Your task to perform on an android device: Search for sushi restaurants on Maps Image 0: 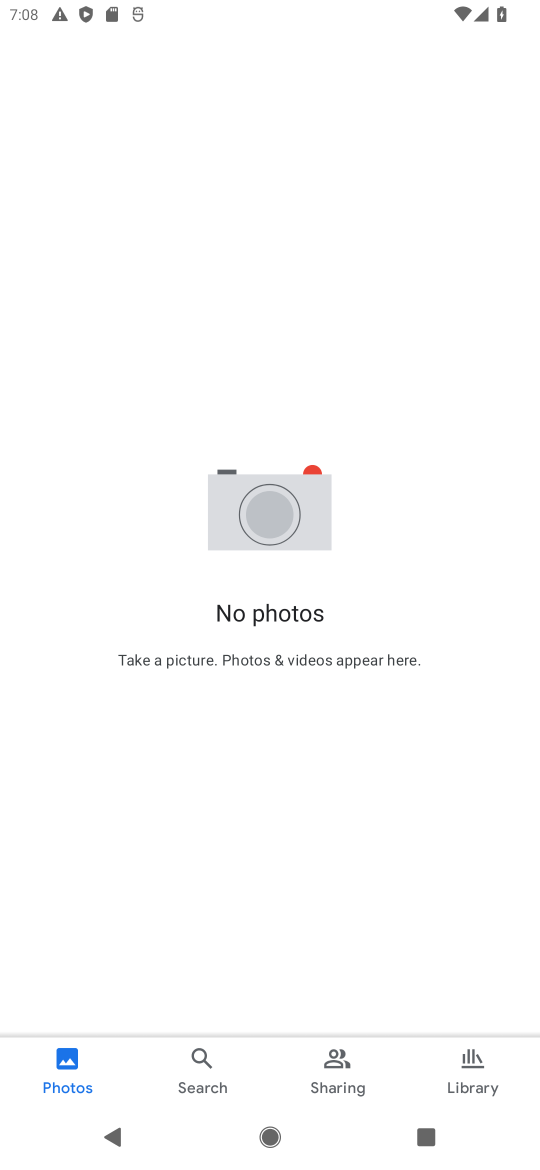
Step 0: press home button
Your task to perform on an android device: Search for sushi restaurants on Maps Image 1: 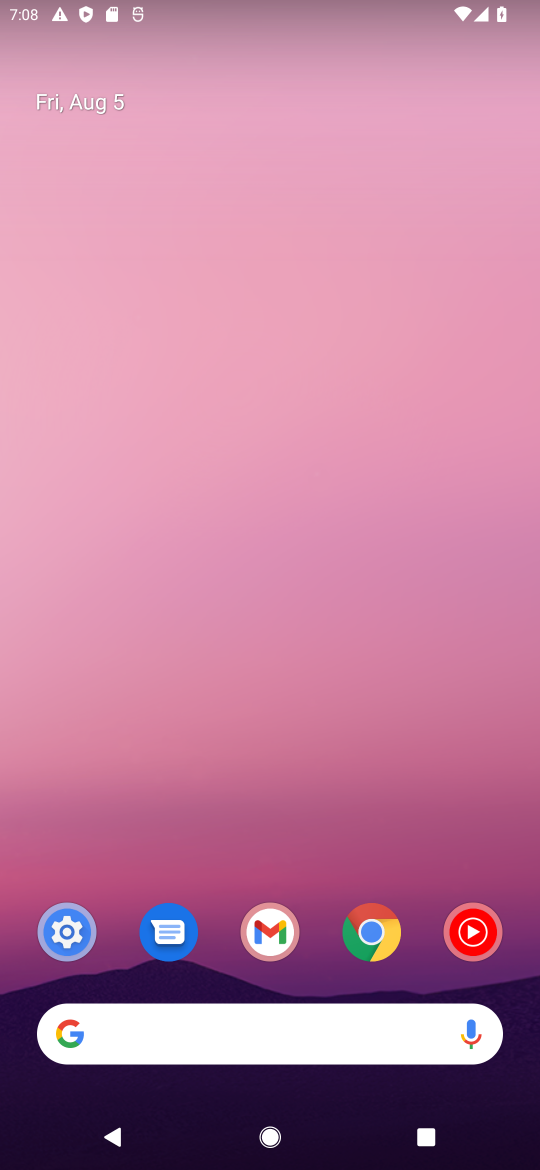
Step 1: drag from (210, 1043) to (297, 99)
Your task to perform on an android device: Search for sushi restaurants on Maps Image 2: 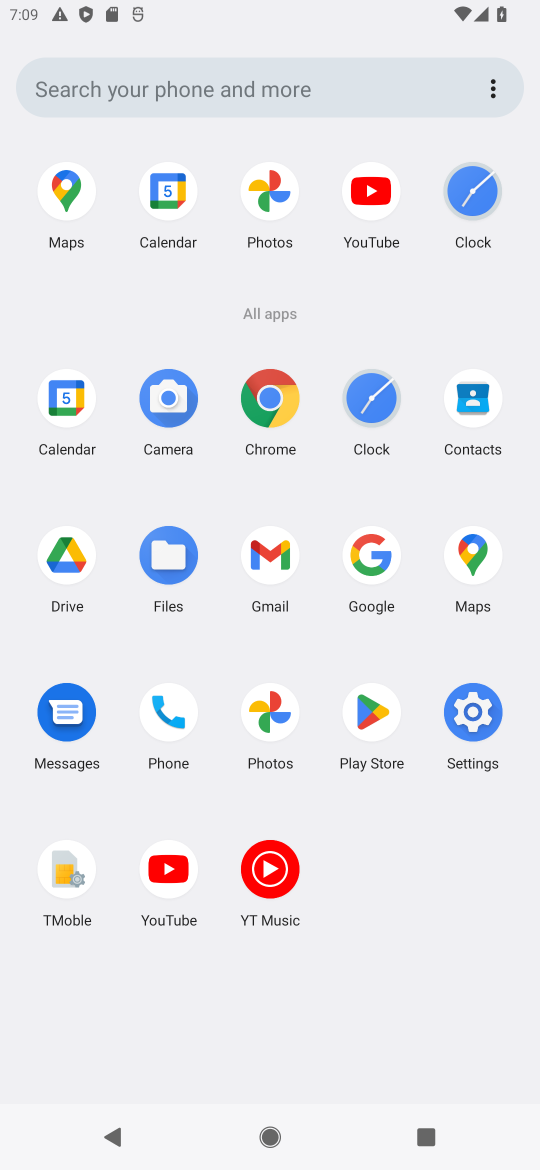
Step 2: click (67, 186)
Your task to perform on an android device: Search for sushi restaurants on Maps Image 3: 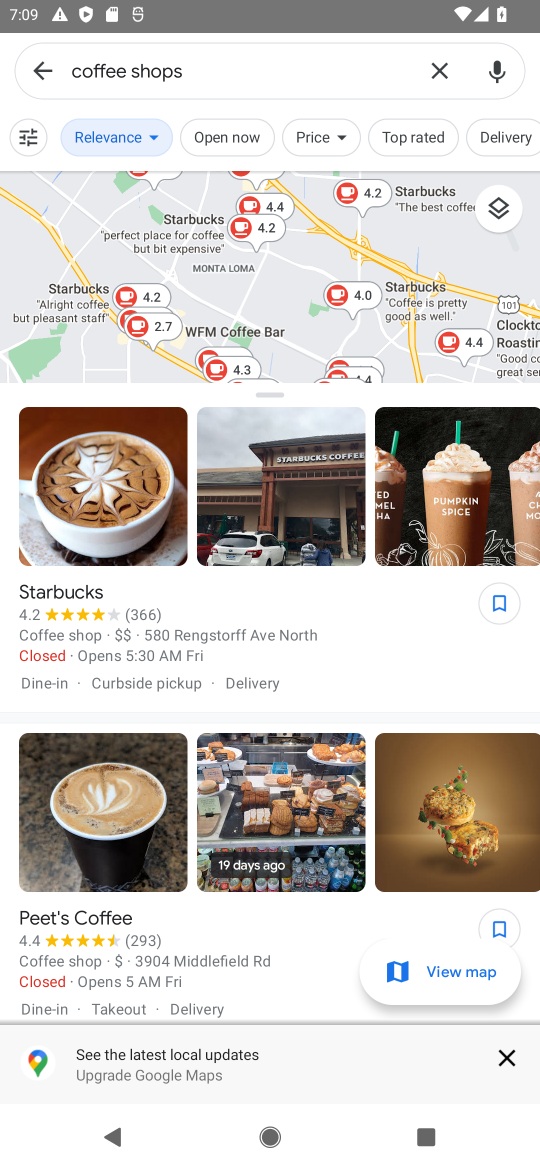
Step 3: click (438, 76)
Your task to perform on an android device: Search for sushi restaurants on Maps Image 4: 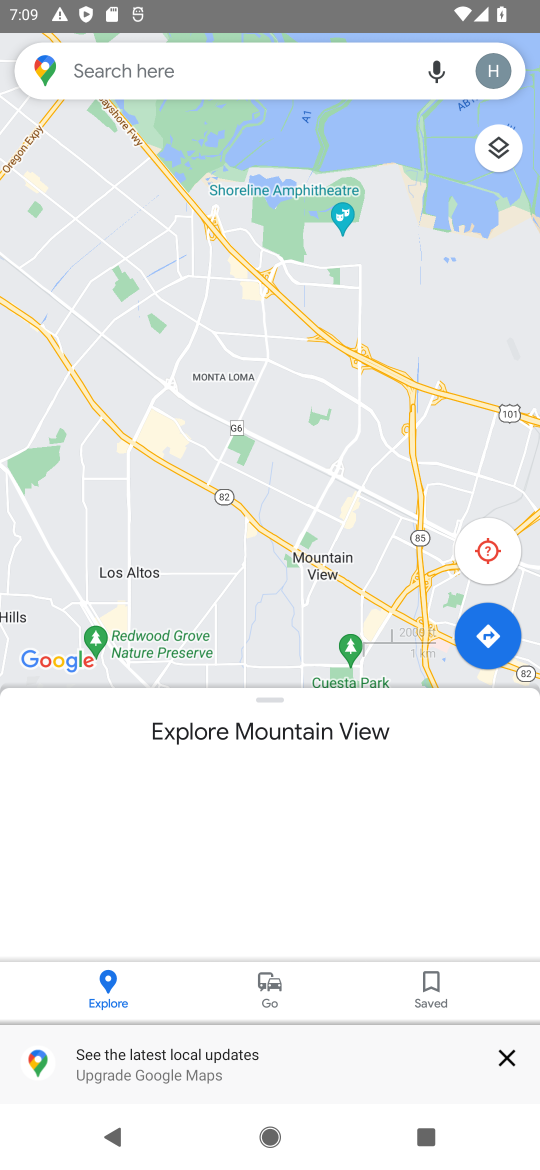
Step 4: click (317, 76)
Your task to perform on an android device: Search for sushi restaurants on Maps Image 5: 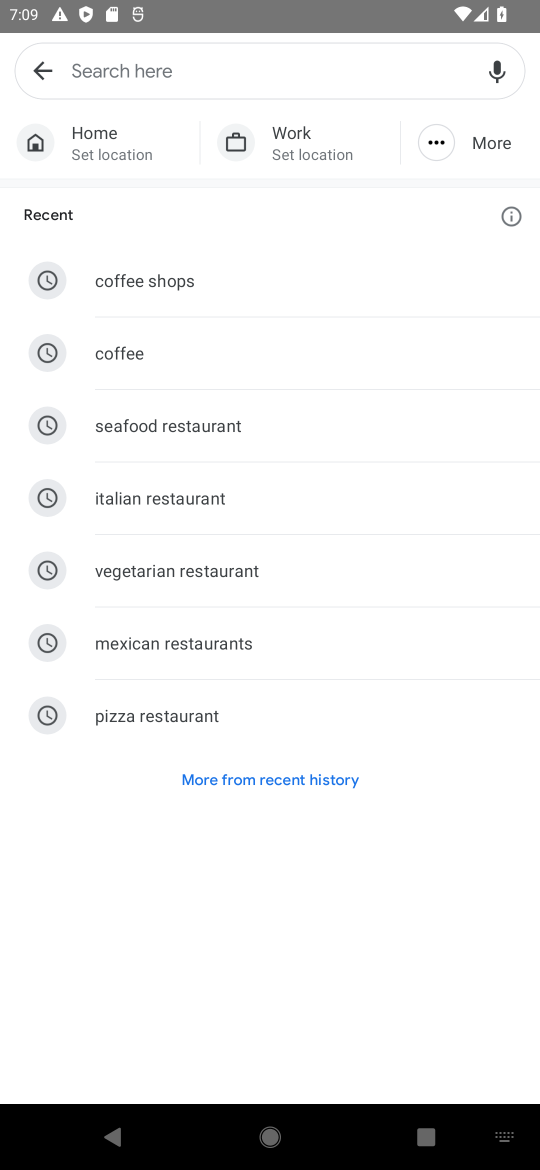
Step 5: type "sushi restaurants"
Your task to perform on an android device: Search for sushi restaurants on Maps Image 6: 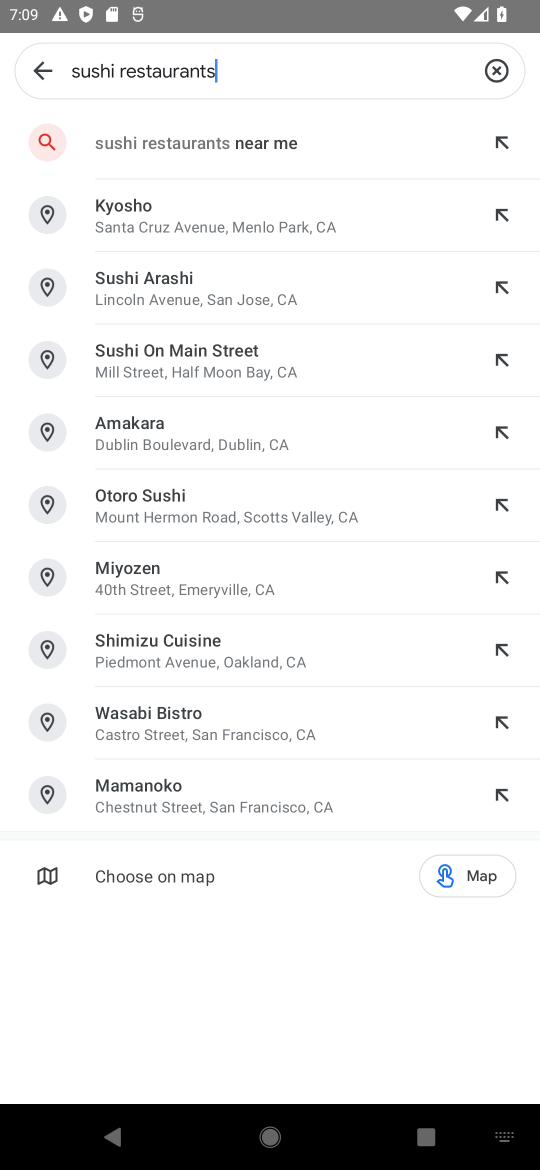
Step 6: click (157, 136)
Your task to perform on an android device: Search for sushi restaurants on Maps Image 7: 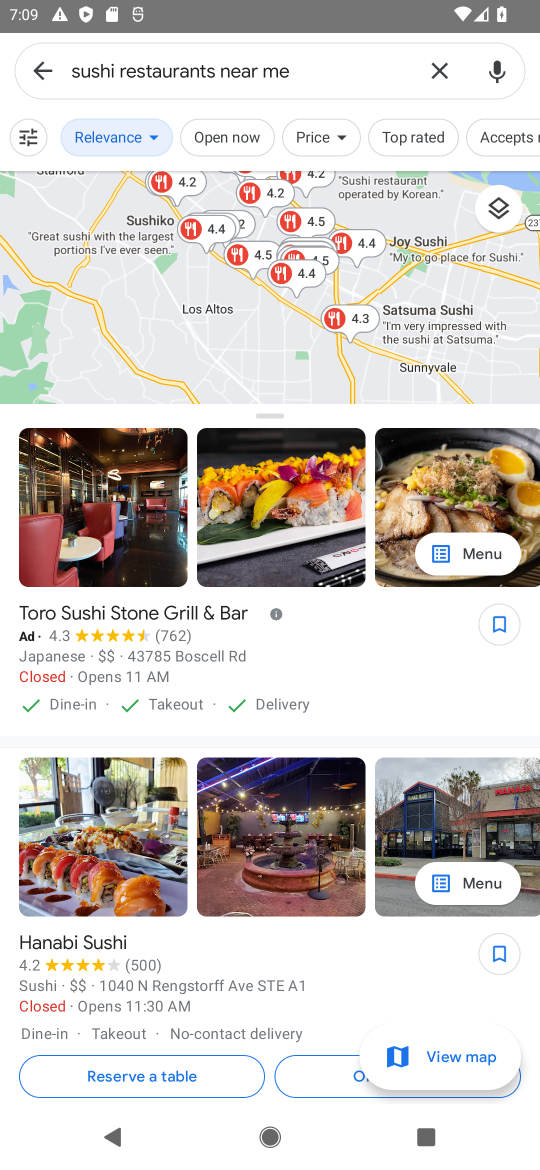
Step 7: task complete